Your task to perform on an android device: open app "Microsoft Authenticator" Image 0: 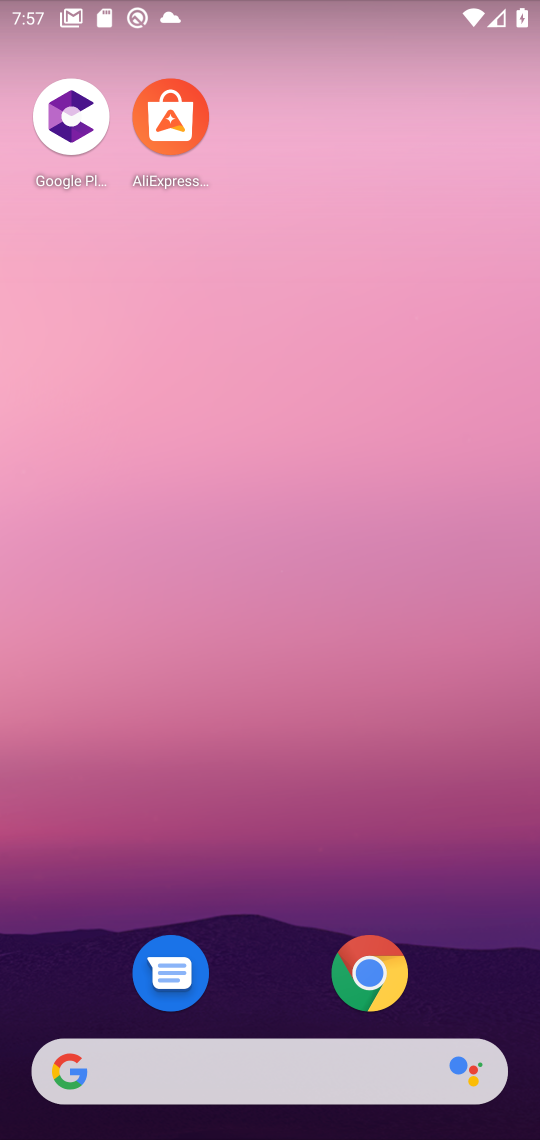
Step 0: drag from (267, 806) to (311, 211)
Your task to perform on an android device: open app "Microsoft Authenticator" Image 1: 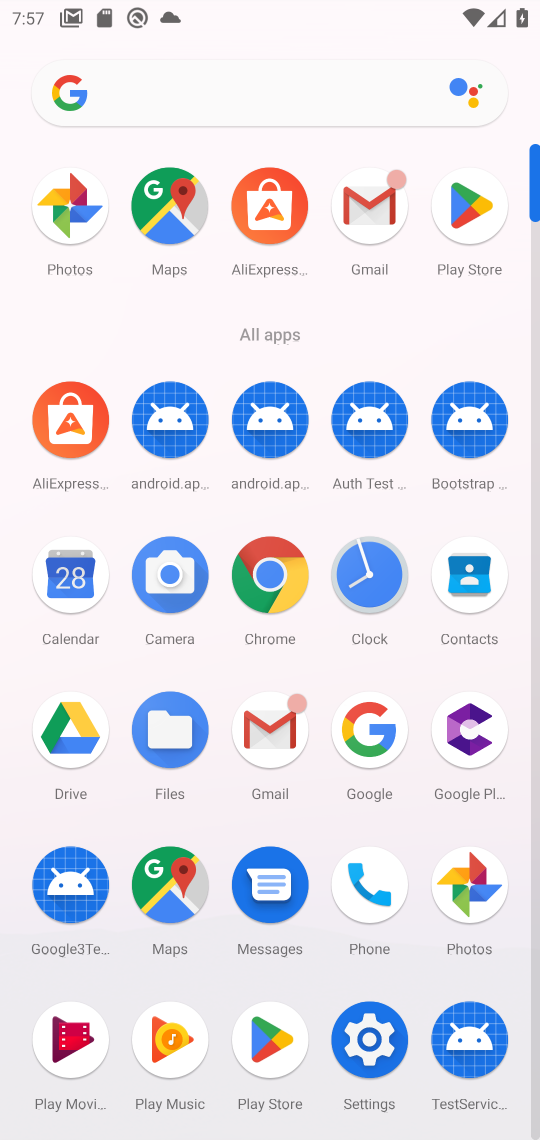
Step 1: click (264, 1062)
Your task to perform on an android device: open app "Microsoft Authenticator" Image 2: 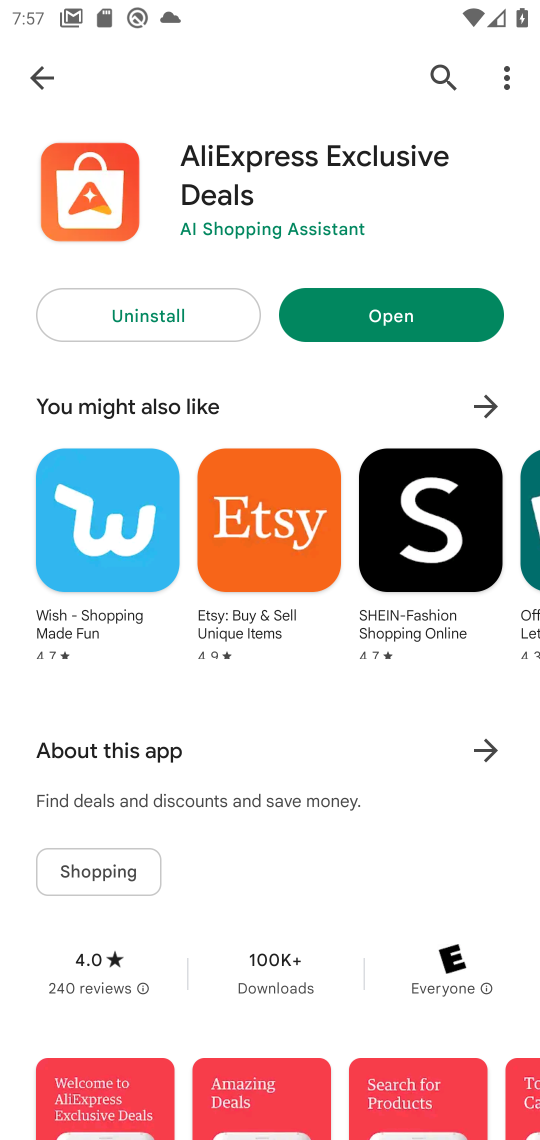
Step 2: click (445, 72)
Your task to perform on an android device: open app "Microsoft Authenticator" Image 3: 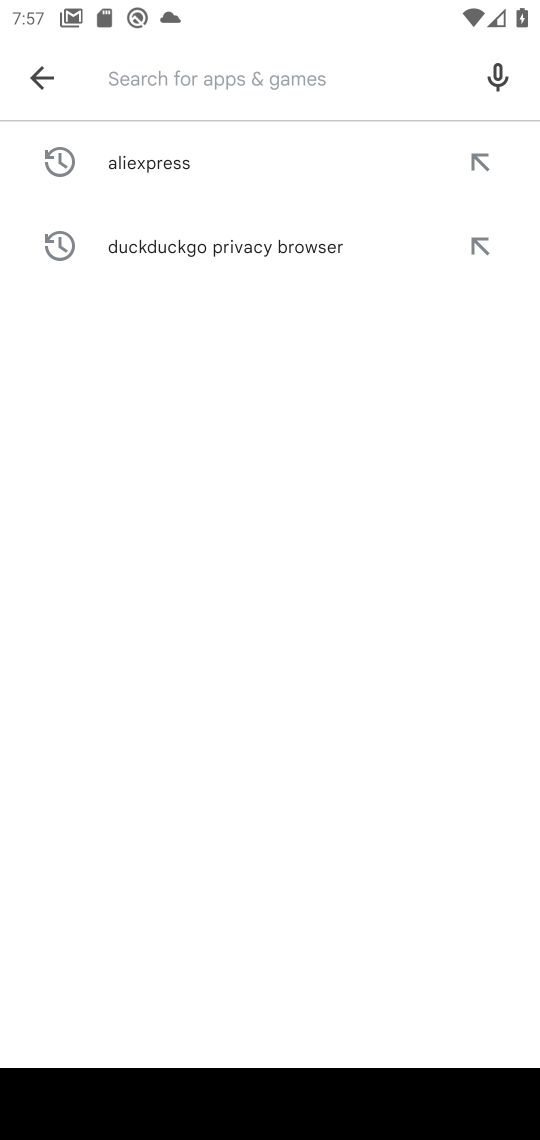
Step 3: type "Microsoft Authenticator"
Your task to perform on an android device: open app "Microsoft Authenticator" Image 4: 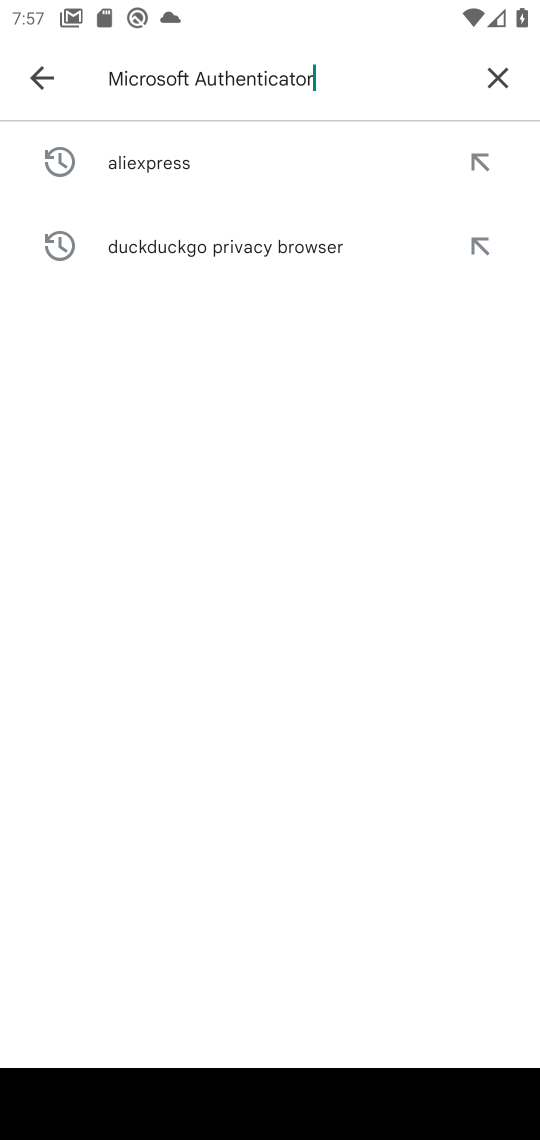
Step 4: type ""
Your task to perform on an android device: open app "Microsoft Authenticator" Image 5: 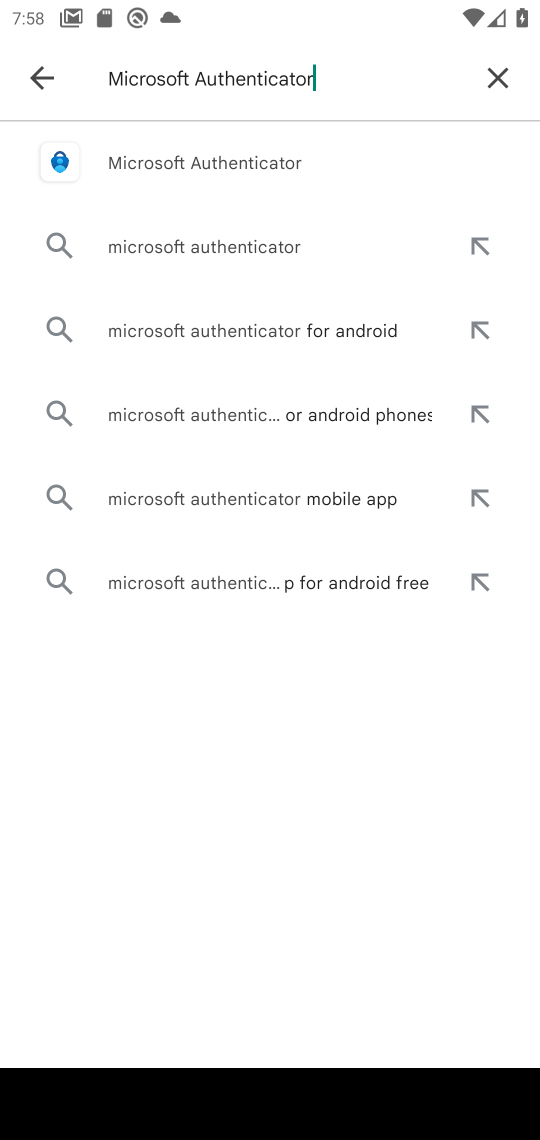
Step 5: click (256, 166)
Your task to perform on an android device: open app "Microsoft Authenticator" Image 6: 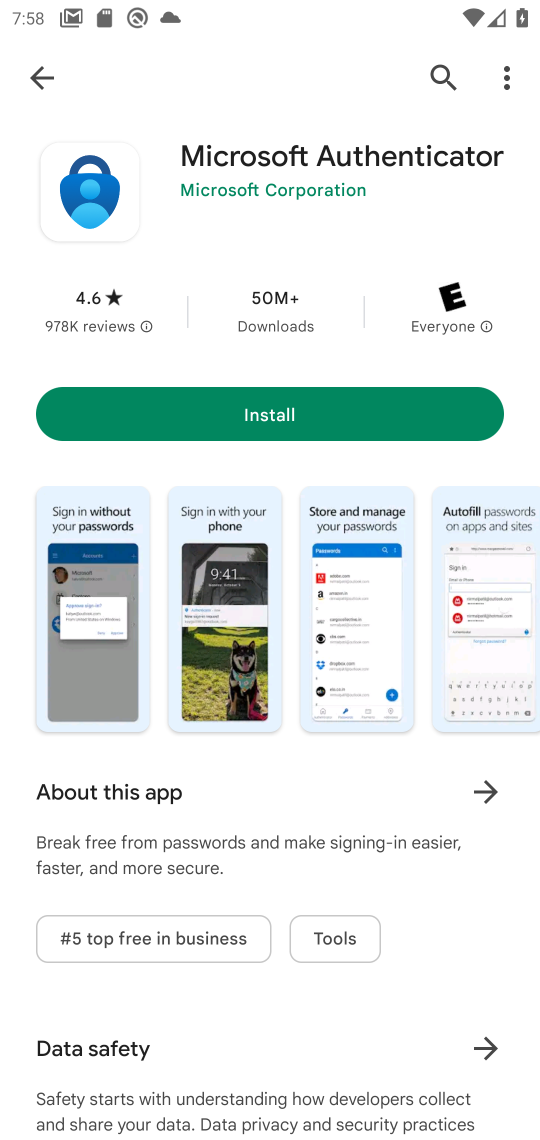
Step 6: task complete